Your task to perform on an android device: Open Maps and search for coffee Image 0: 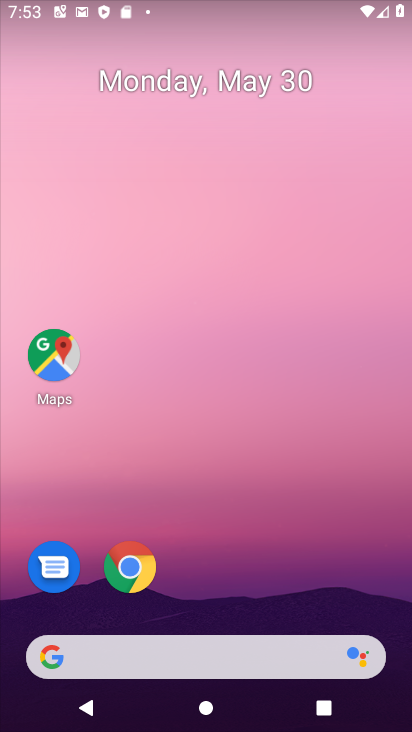
Step 0: click (64, 360)
Your task to perform on an android device: Open Maps and search for coffee Image 1: 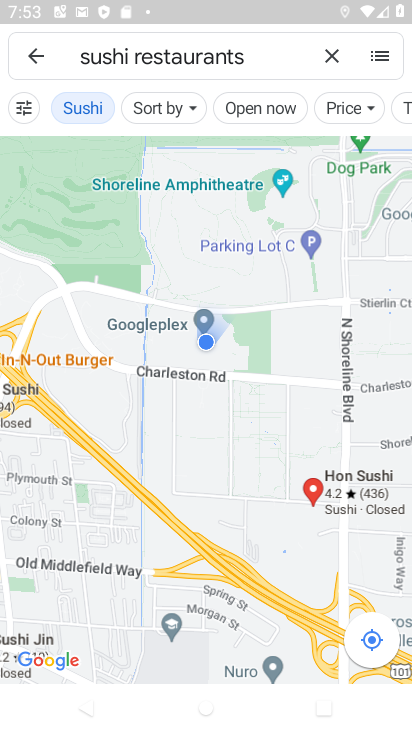
Step 1: click (323, 52)
Your task to perform on an android device: Open Maps and search for coffee Image 2: 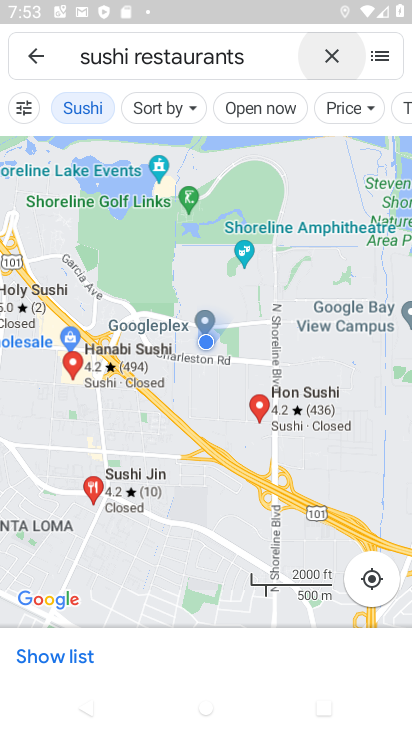
Step 2: click (280, 57)
Your task to perform on an android device: Open Maps and search for coffee Image 3: 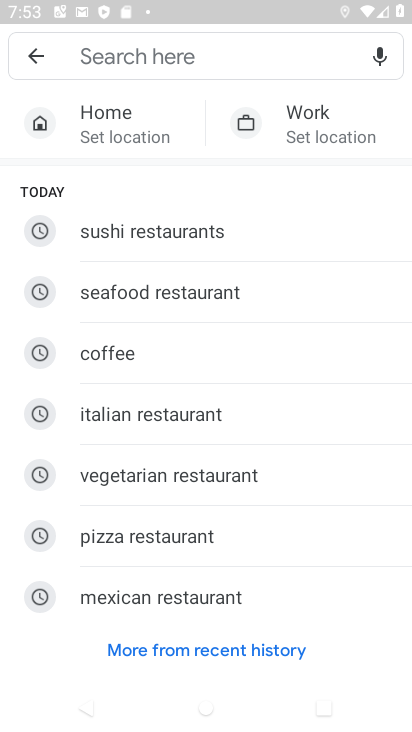
Step 3: click (280, 57)
Your task to perform on an android device: Open Maps and search for coffee Image 4: 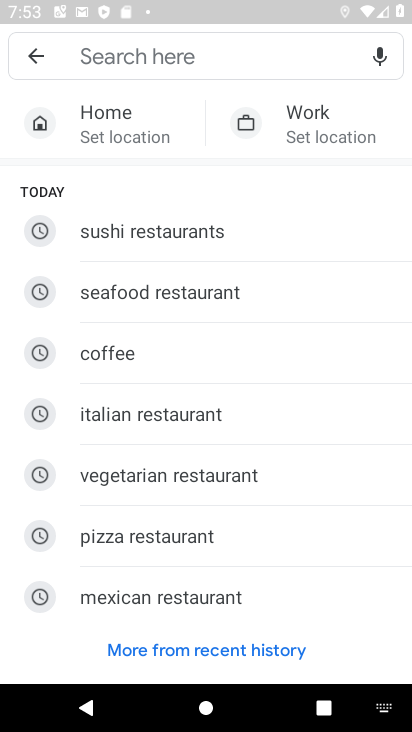
Step 4: click (158, 349)
Your task to perform on an android device: Open Maps and search for coffee Image 5: 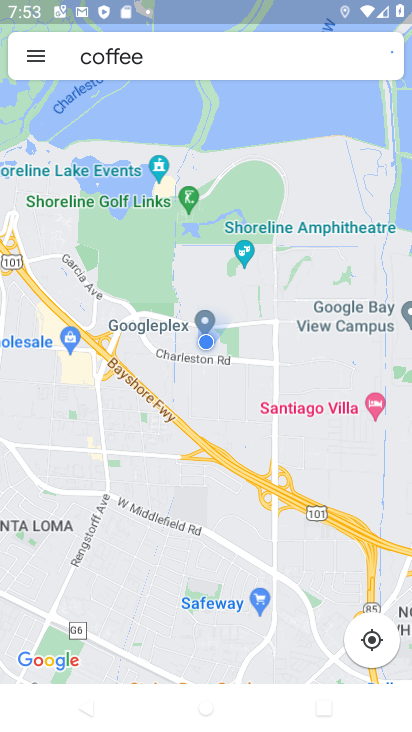
Step 5: task complete